Your task to perform on an android device: turn off javascript in the chrome app Image 0: 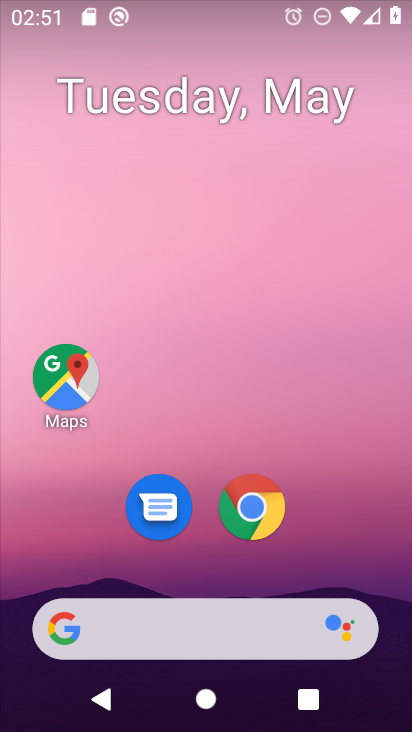
Step 0: click (261, 518)
Your task to perform on an android device: turn off javascript in the chrome app Image 1: 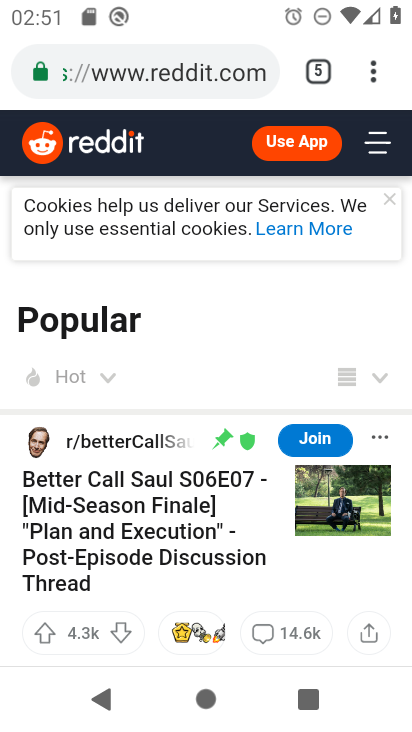
Step 1: drag from (381, 80) to (168, 485)
Your task to perform on an android device: turn off javascript in the chrome app Image 2: 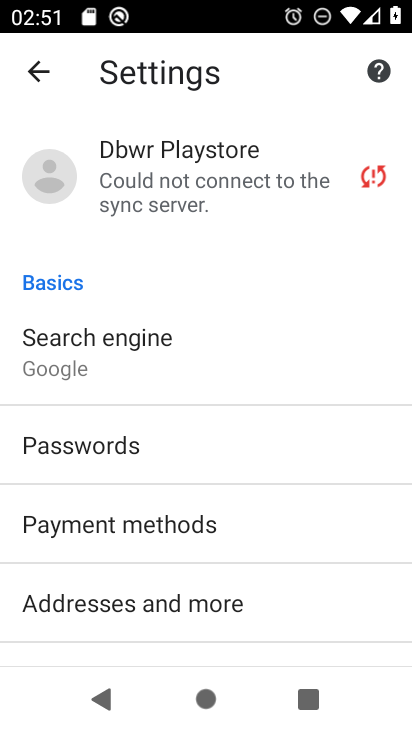
Step 2: drag from (274, 595) to (290, 305)
Your task to perform on an android device: turn off javascript in the chrome app Image 3: 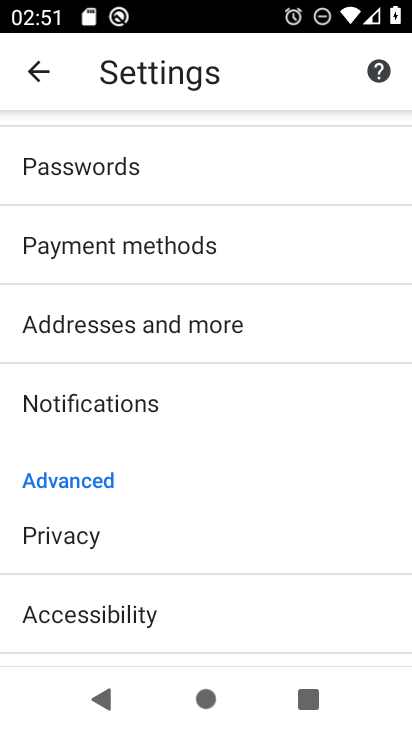
Step 3: drag from (160, 566) to (238, 317)
Your task to perform on an android device: turn off javascript in the chrome app Image 4: 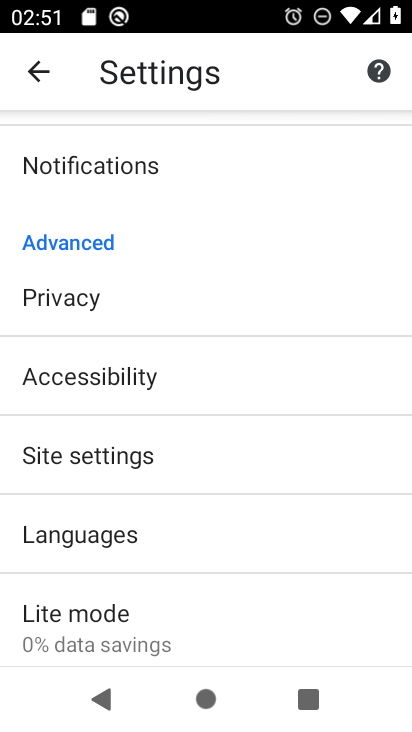
Step 4: click (198, 460)
Your task to perform on an android device: turn off javascript in the chrome app Image 5: 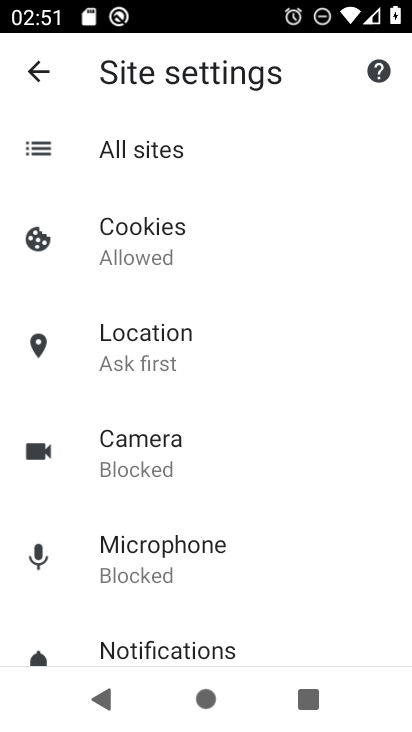
Step 5: drag from (202, 567) to (271, 244)
Your task to perform on an android device: turn off javascript in the chrome app Image 6: 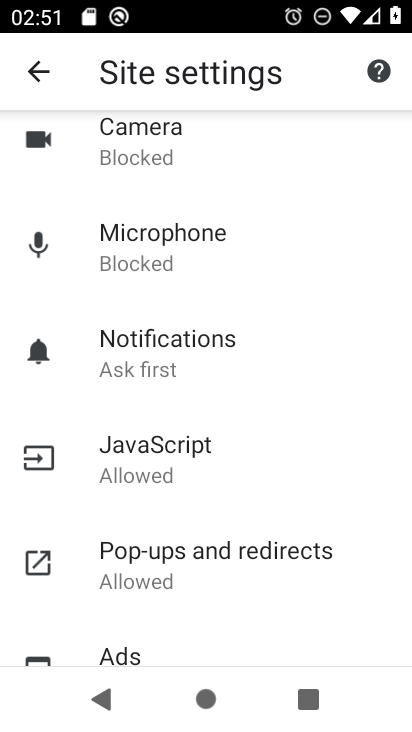
Step 6: click (224, 465)
Your task to perform on an android device: turn off javascript in the chrome app Image 7: 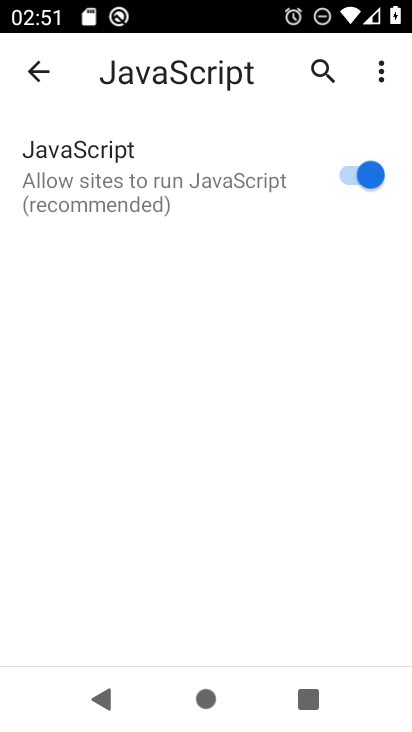
Step 7: click (352, 174)
Your task to perform on an android device: turn off javascript in the chrome app Image 8: 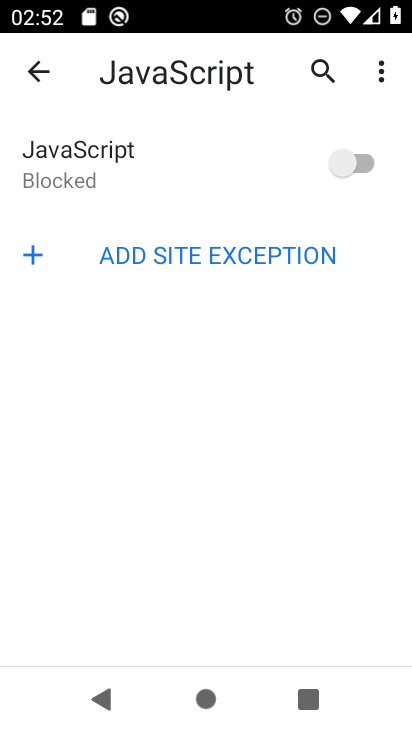
Step 8: task complete